Your task to perform on an android device: Go to sound settings Image 0: 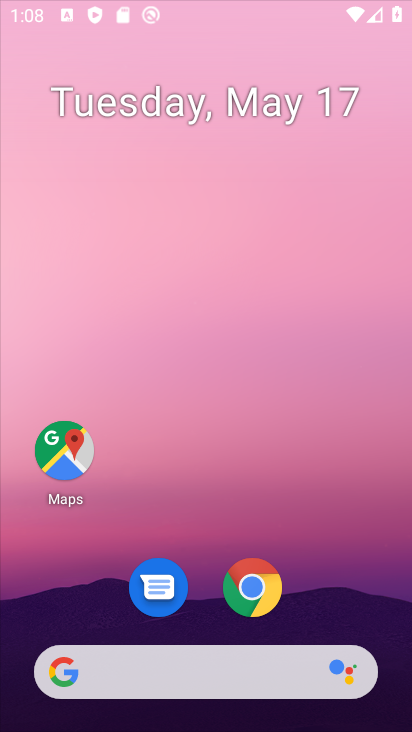
Step 0: drag from (322, 12) to (358, 5)
Your task to perform on an android device: Go to sound settings Image 1: 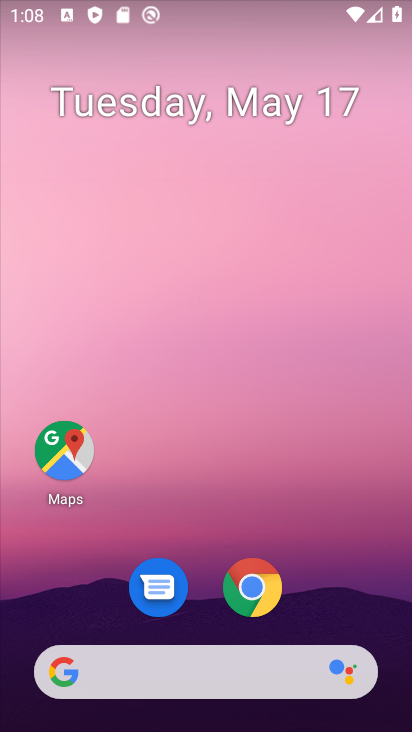
Step 1: drag from (201, 619) to (300, 201)
Your task to perform on an android device: Go to sound settings Image 2: 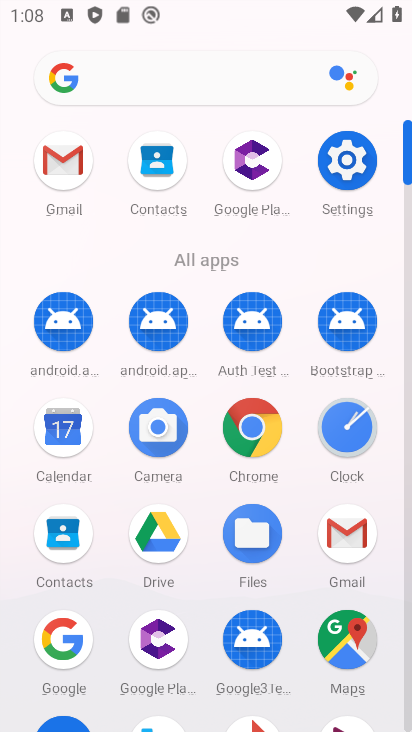
Step 2: click (347, 169)
Your task to perform on an android device: Go to sound settings Image 3: 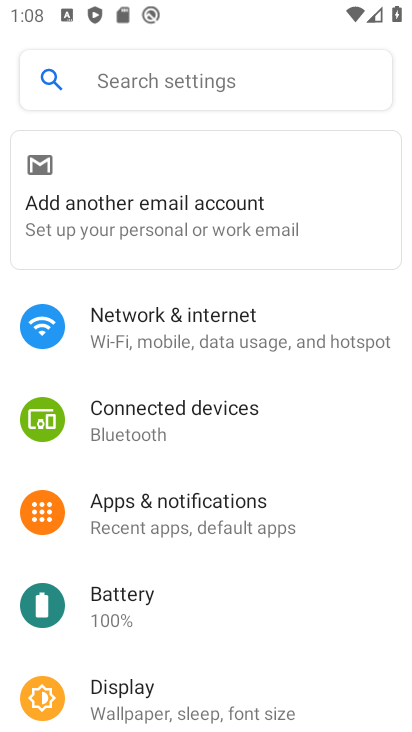
Step 3: drag from (279, 594) to (332, 129)
Your task to perform on an android device: Go to sound settings Image 4: 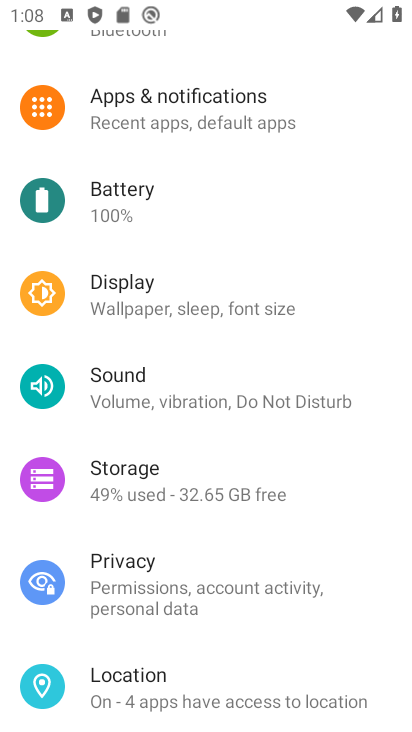
Step 4: click (188, 391)
Your task to perform on an android device: Go to sound settings Image 5: 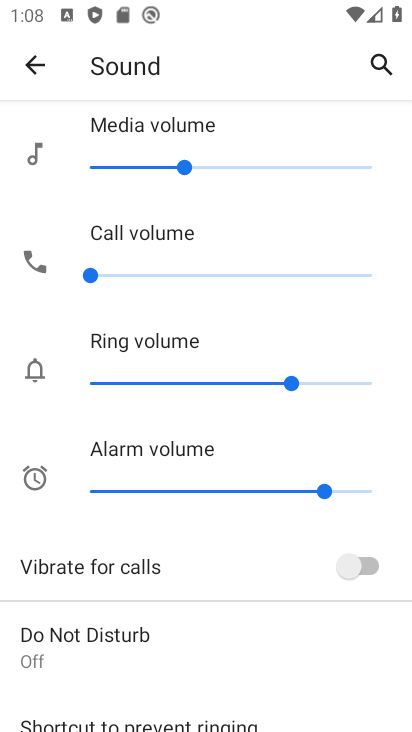
Step 5: task complete